Your task to perform on an android device: change the clock display to show seconds Image 0: 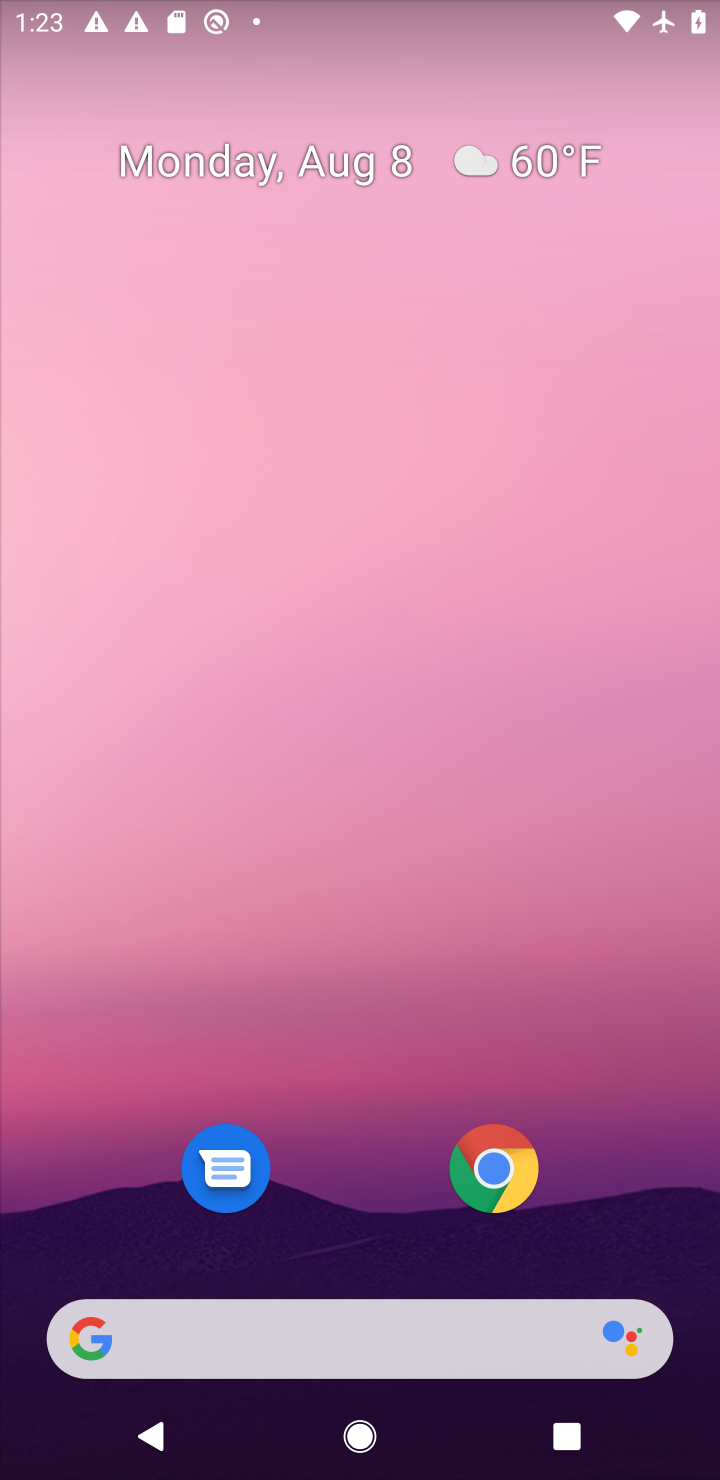
Step 0: drag from (346, 1287) to (514, 89)
Your task to perform on an android device: change the clock display to show seconds Image 1: 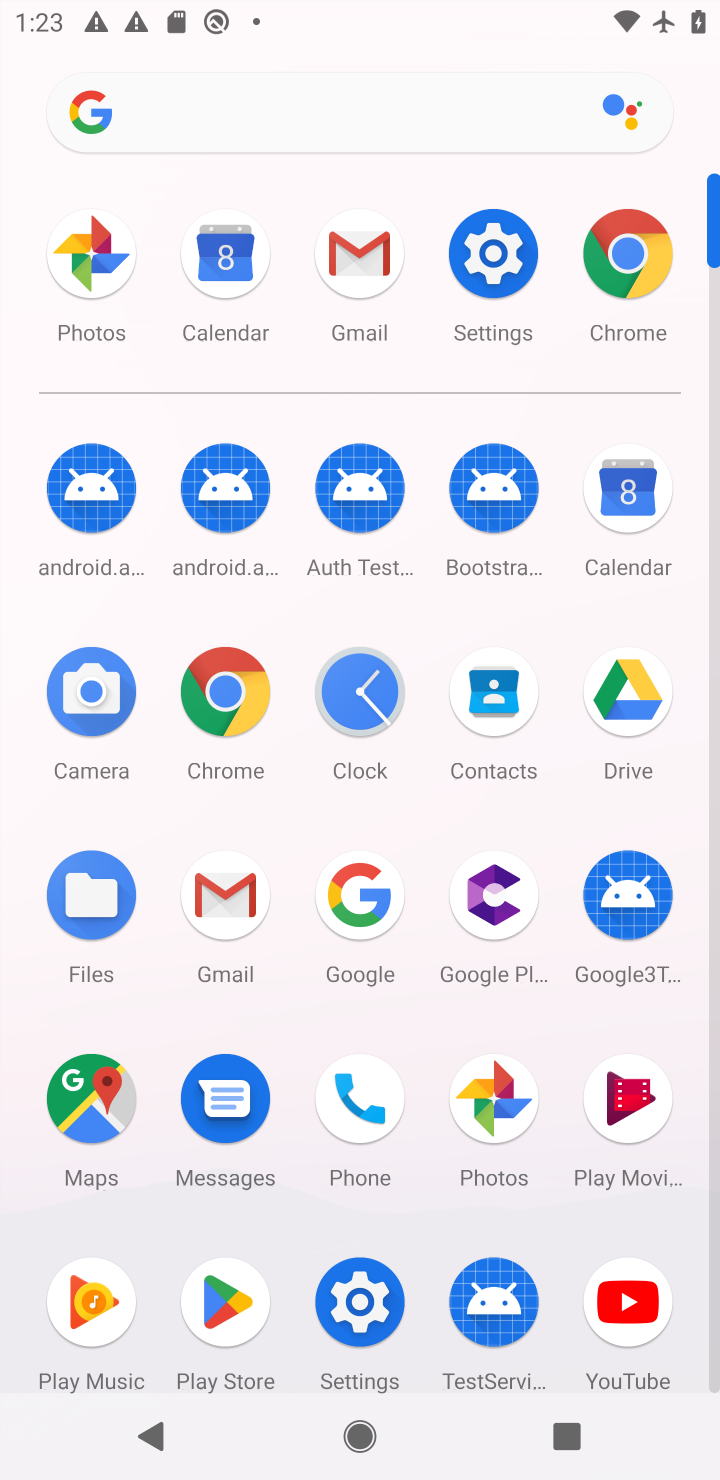
Step 1: click (359, 1334)
Your task to perform on an android device: change the clock display to show seconds Image 2: 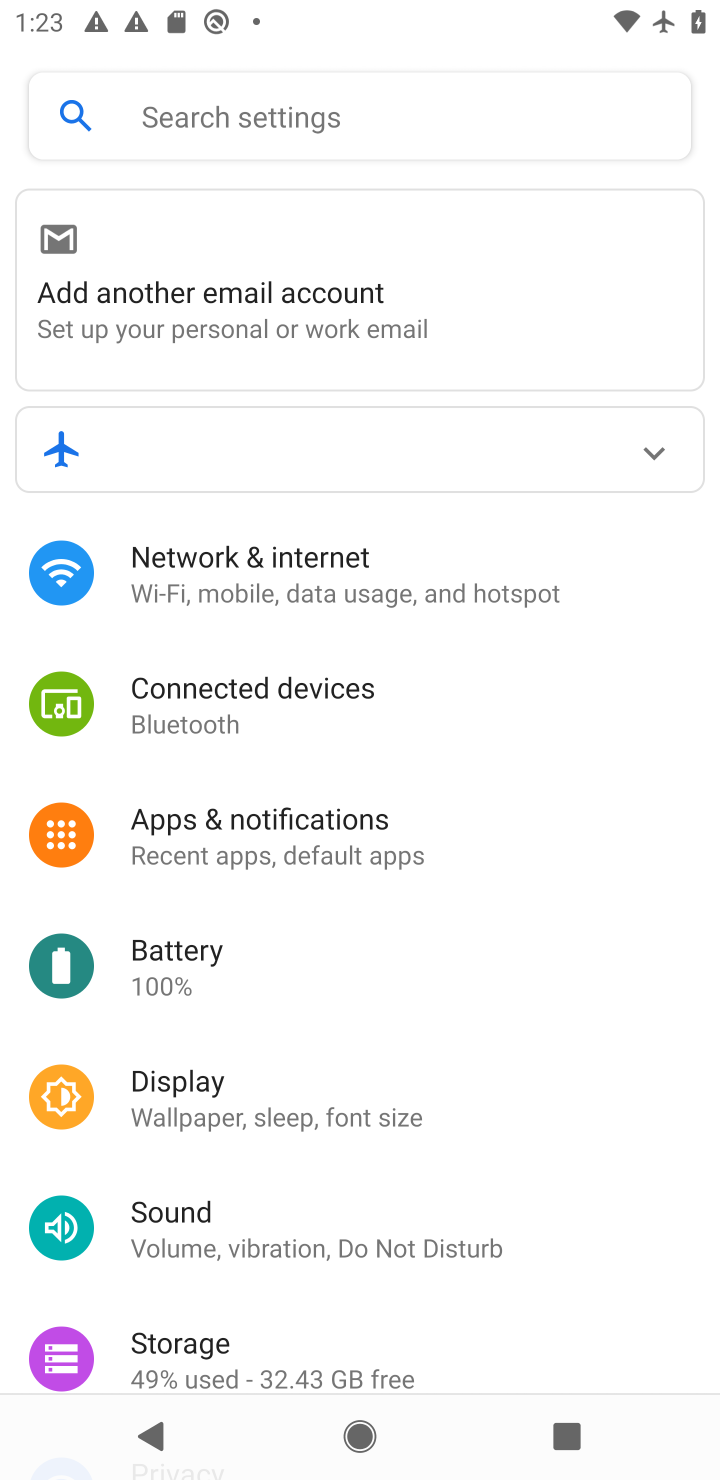
Step 2: click (224, 1071)
Your task to perform on an android device: change the clock display to show seconds Image 3: 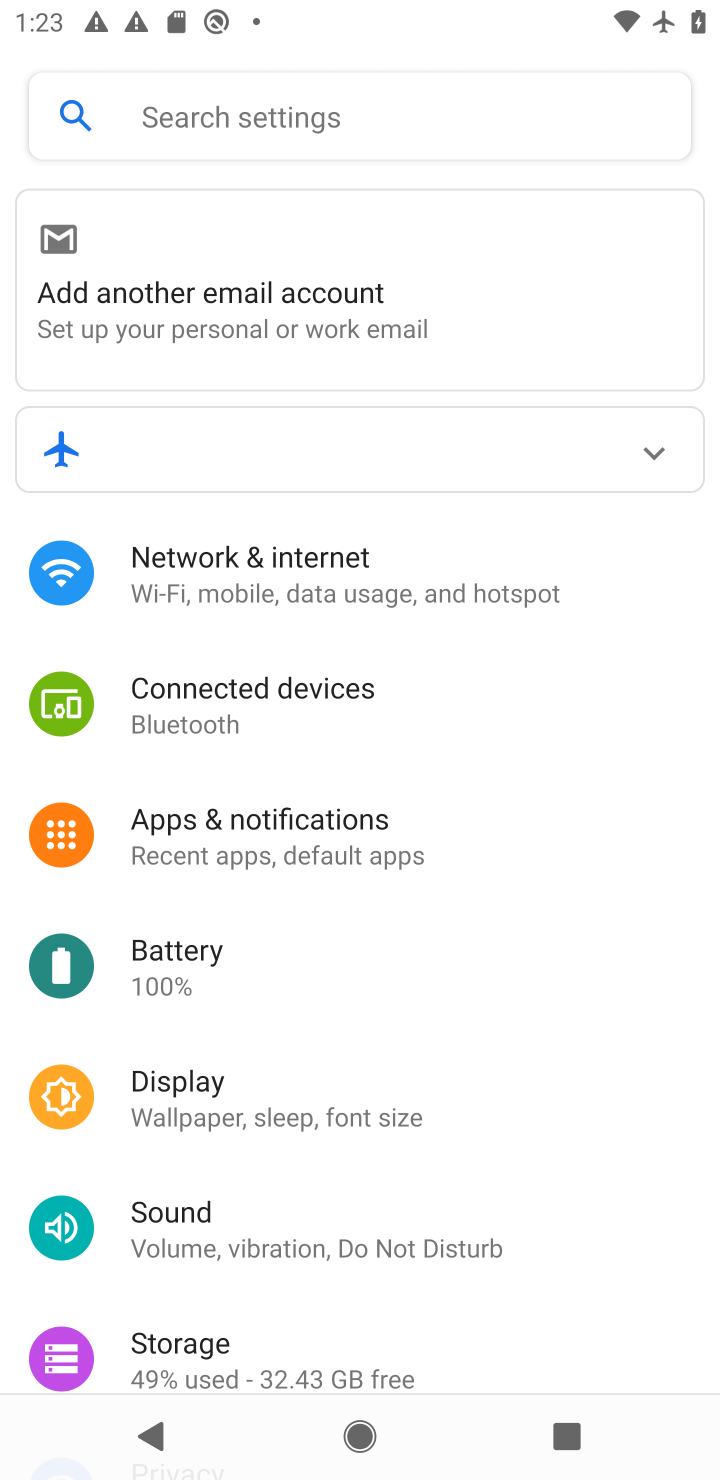
Step 3: task complete